Your task to perform on an android device: see sites visited before in the chrome app Image 0: 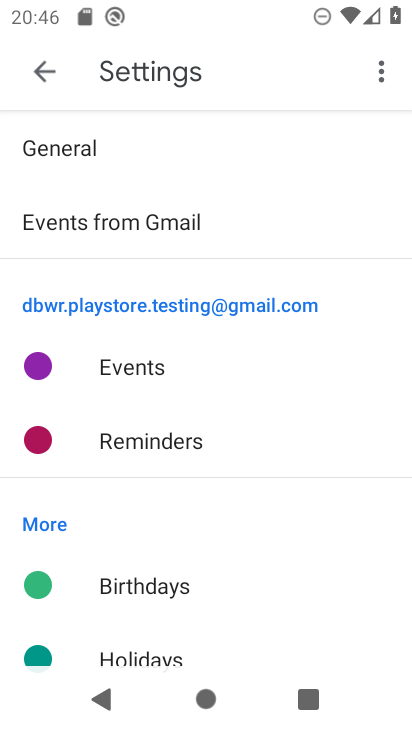
Step 0: press home button
Your task to perform on an android device: see sites visited before in the chrome app Image 1: 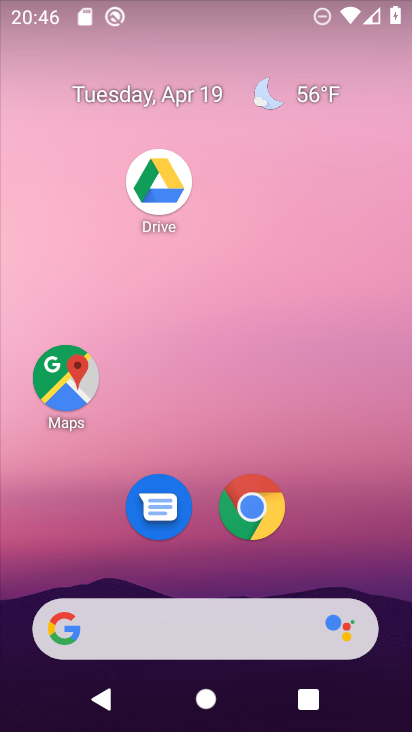
Step 1: click (250, 500)
Your task to perform on an android device: see sites visited before in the chrome app Image 2: 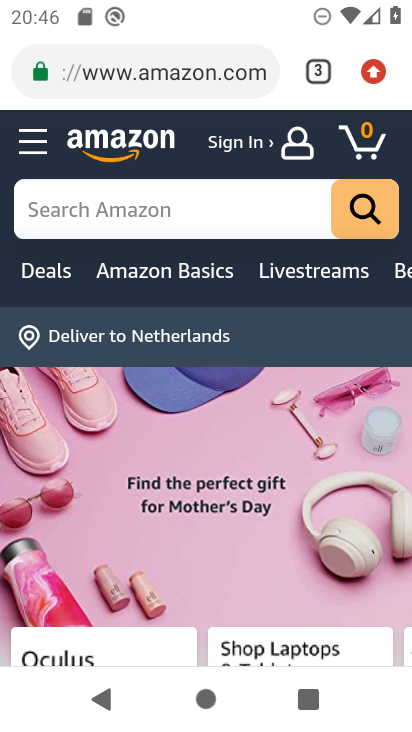
Step 2: click (373, 66)
Your task to perform on an android device: see sites visited before in the chrome app Image 3: 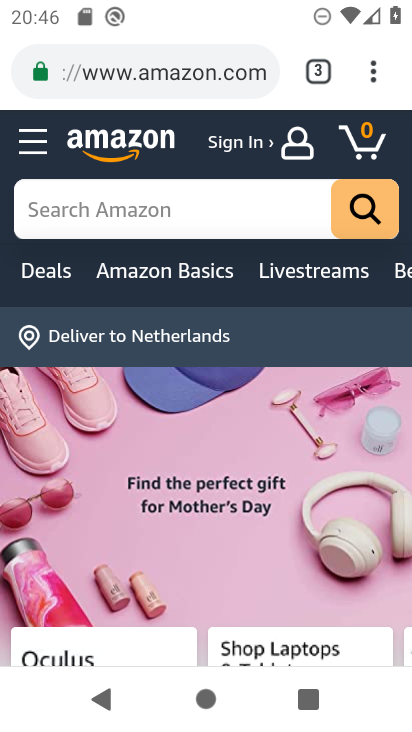
Step 3: task complete